Your task to perform on an android device: Search for sushi restaurants on Maps Image 0: 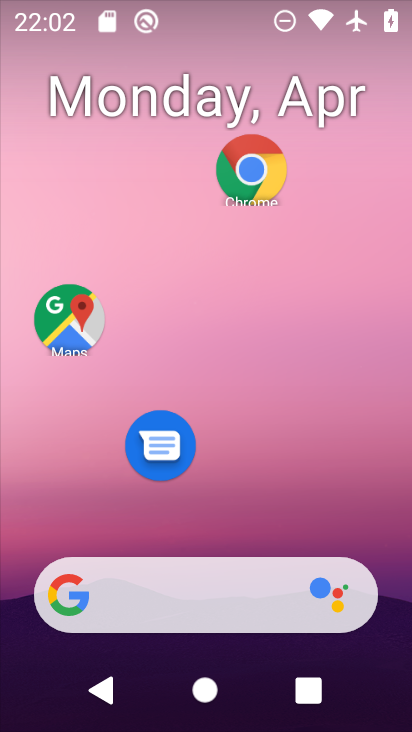
Step 0: click (70, 325)
Your task to perform on an android device: Search for sushi restaurants on Maps Image 1: 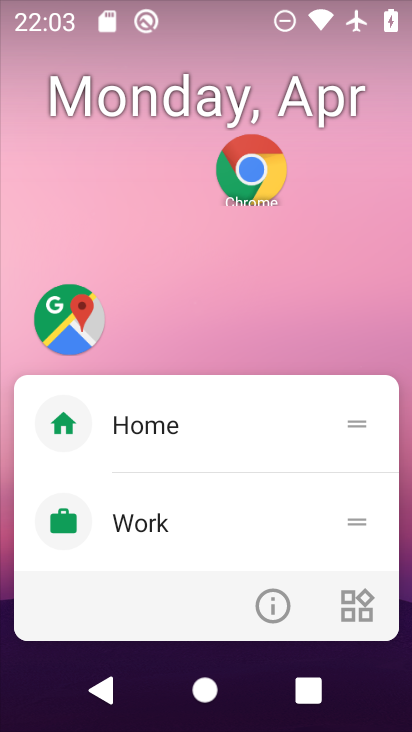
Step 1: click (56, 297)
Your task to perform on an android device: Search for sushi restaurants on Maps Image 2: 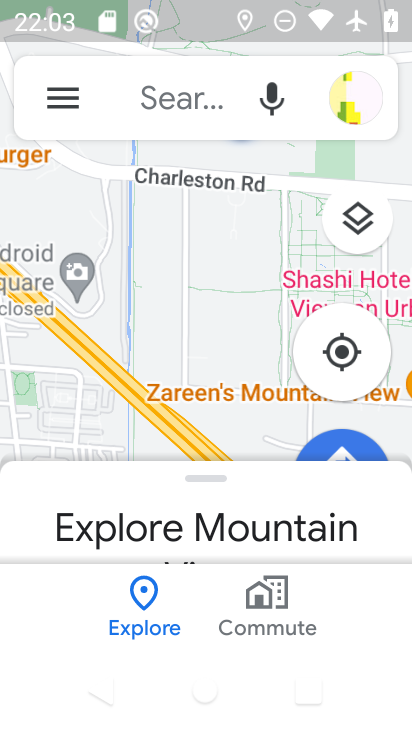
Step 2: click (196, 92)
Your task to perform on an android device: Search for sushi restaurants on Maps Image 3: 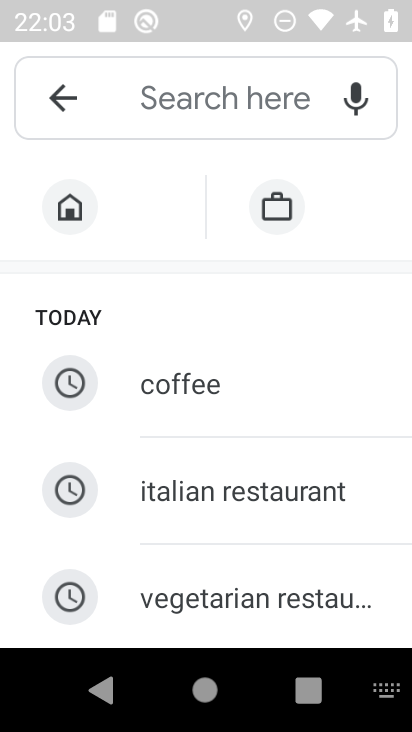
Step 3: type "sushi restaurants"
Your task to perform on an android device: Search for sushi restaurants on Maps Image 4: 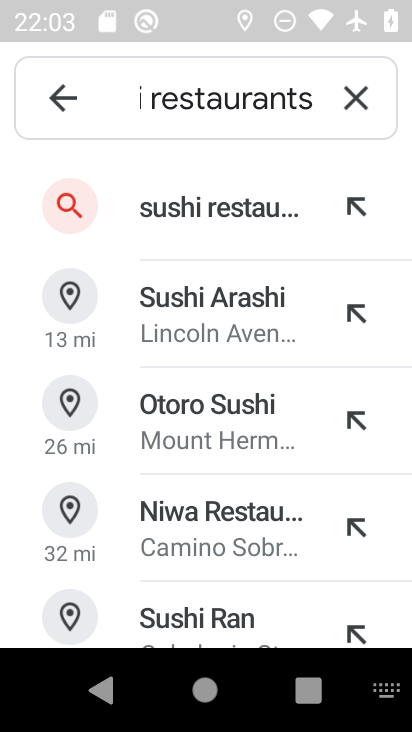
Step 4: click (226, 209)
Your task to perform on an android device: Search for sushi restaurants on Maps Image 5: 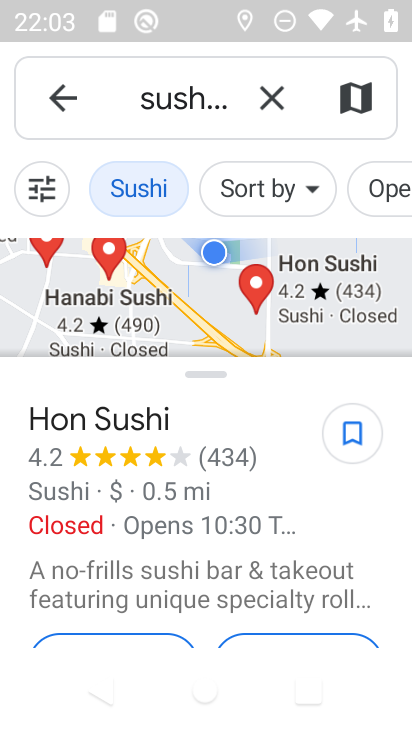
Step 5: task complete